Your task to perform on an android device: Open calendar and show me the third week of next month Image 0: 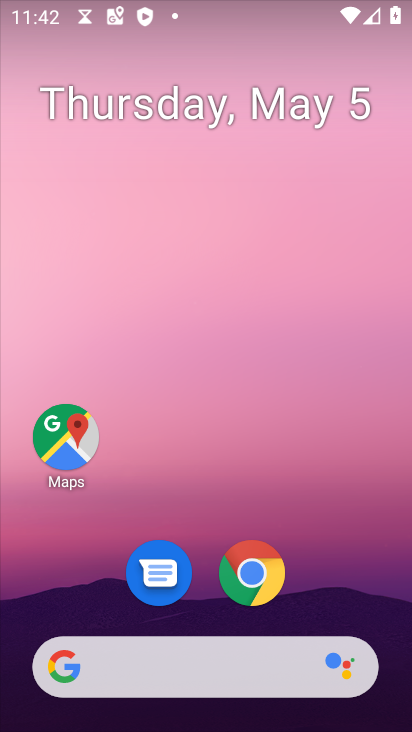
Step 0: drag from (326, 584) to (336, 201)
Your task to perform on an android device: Open calendar and show me the third week of next month Image 1: 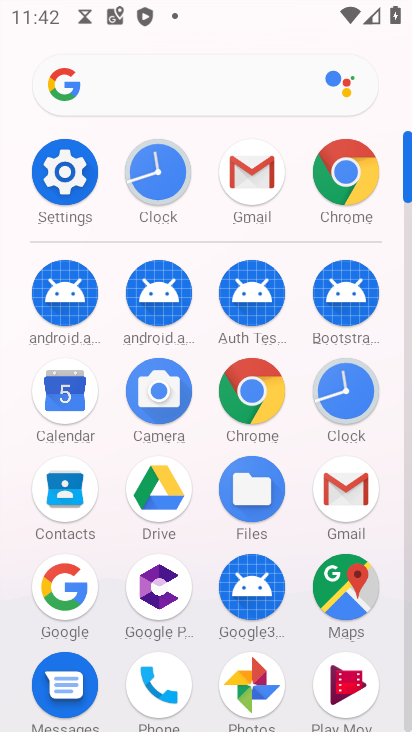
Step 1: click (65, 386)
Your task to perform on an android device: Open calendar and show me the third week of next month Image 2: 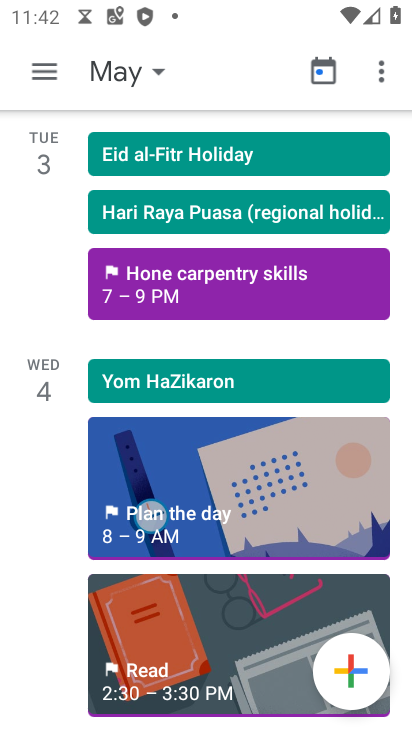
Step 2: click (36, 64)
Your task to perform on an android device: Open calendar and show me the third week of next month Image 3: 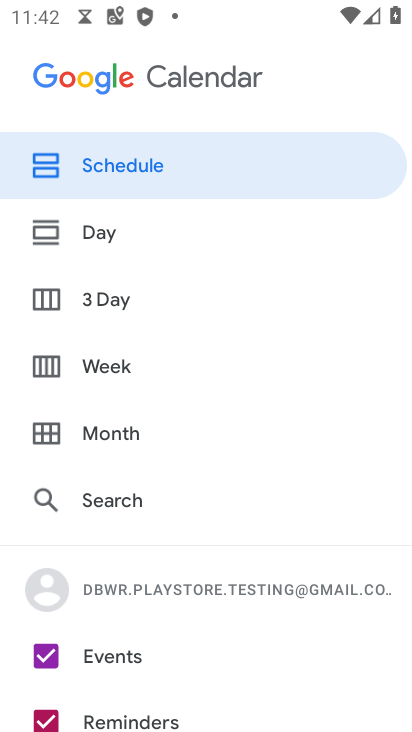
Step 3: click (123, 423)
Your task to perform on an android device: Open calendar and show me the third week of next month Image 4: 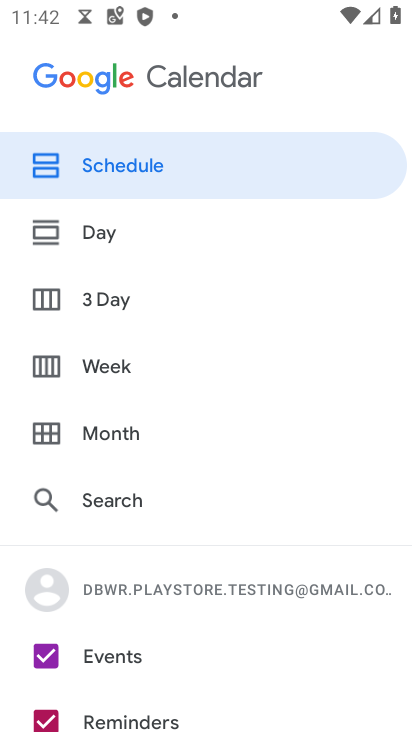
Step 4: click (118, 429)
Your task to perform on an android device: Open calendar and show me the third week of next month Image 5: 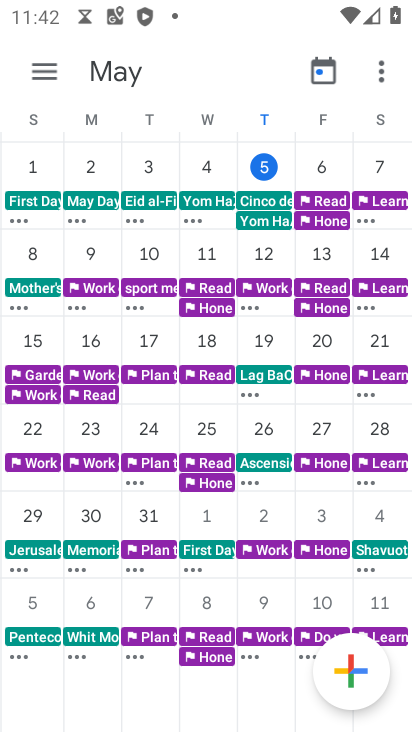
Step 5: task complete